Your task to perform on an android device: Open Reddit.com Image 0: 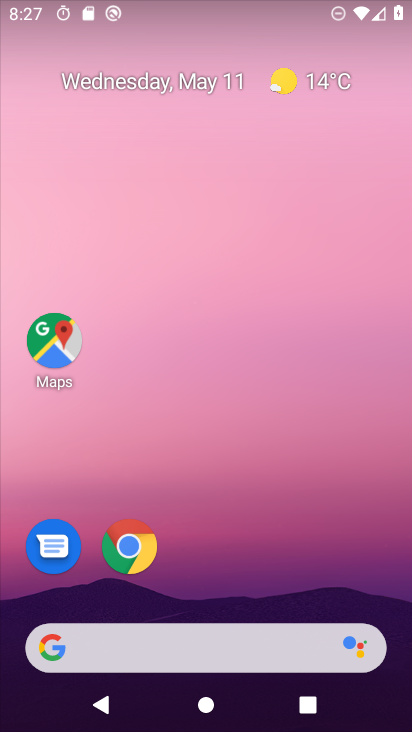
Step 0: click (138, 567)
Your task to perform on an android device: Open Reddit.com Image 1: 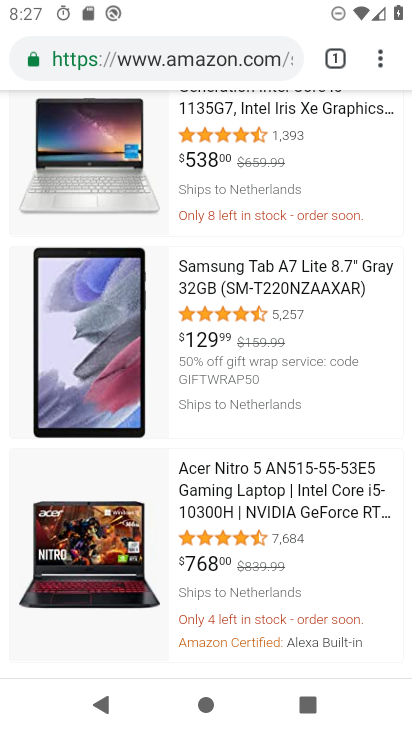
Step 1: click (130, 69)
Your task to perform on an android device: Open Reddit.com Image 2: 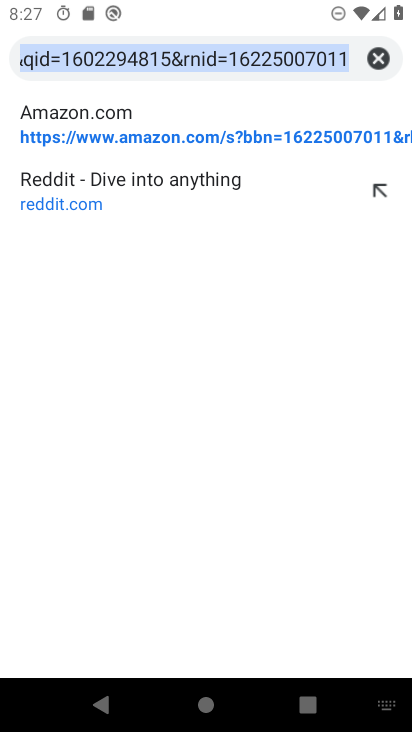
Step 2: click (126, 182)
Your task to perform on an android device: Open Reddit.com Image 3: 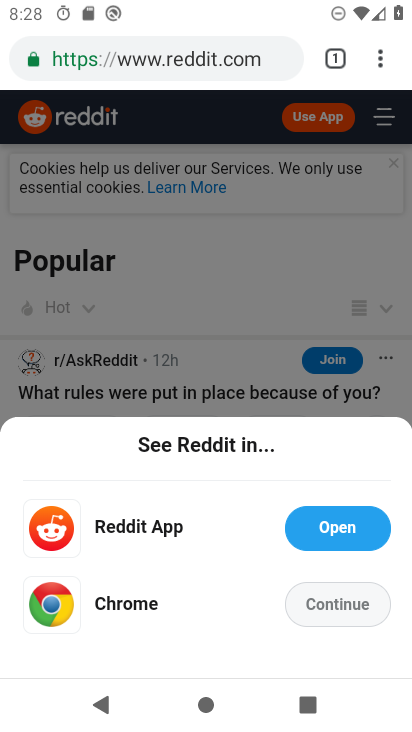
Step 3: click (358, 588)
Your task to perform on an android device: Open Reddit.com Image 4: 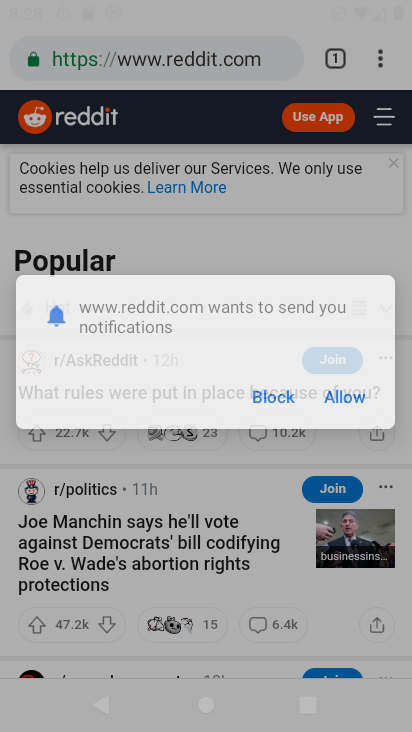
Step 4: task complete